Your task to perform on an android device: allow cookies in the chrome app Image 0: 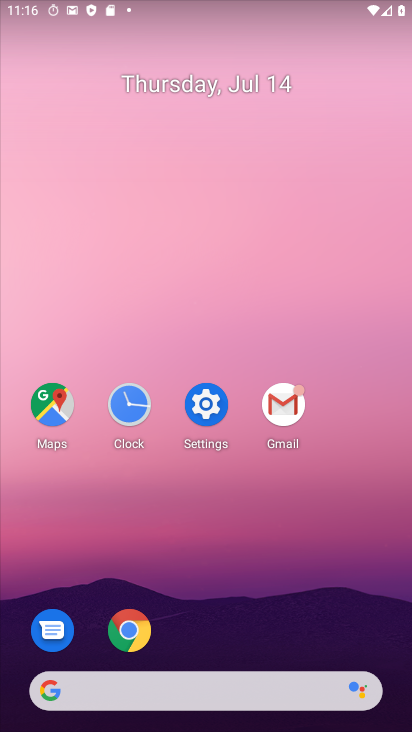
Step 0: click (130, 632)
Your task to perform on an android device: allow cookies in the chrome app Image 1: 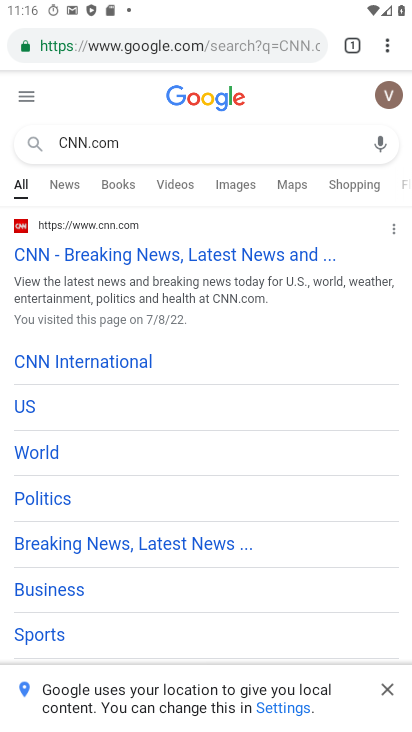
Step 1: click (387, 43)
Your task to perform on an android device: allow cookies in the chrome app Image 2: 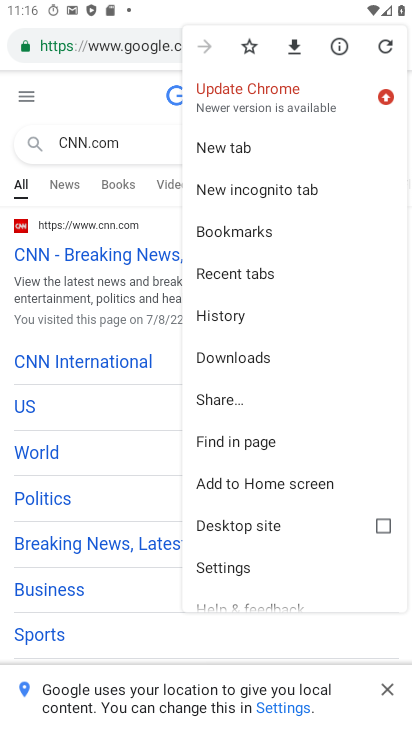
Step 2: click (212, 565)
Your task to perform on an android device: allow cookies in the chrome app Image 3: 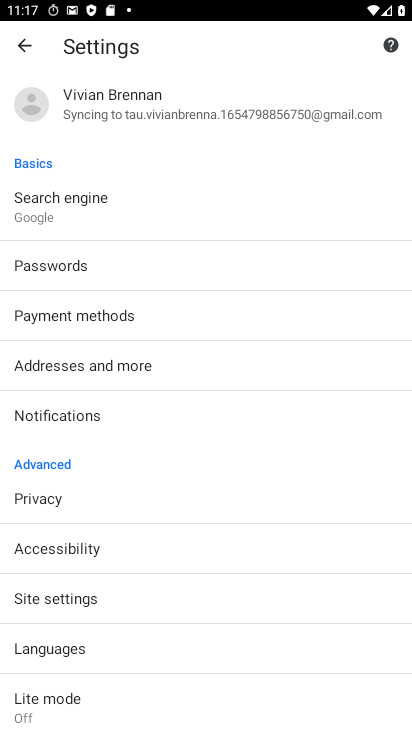
Step 3: click (79, 592)
Your task to perform on an android device: allow cookies in the chrome app Image 4: 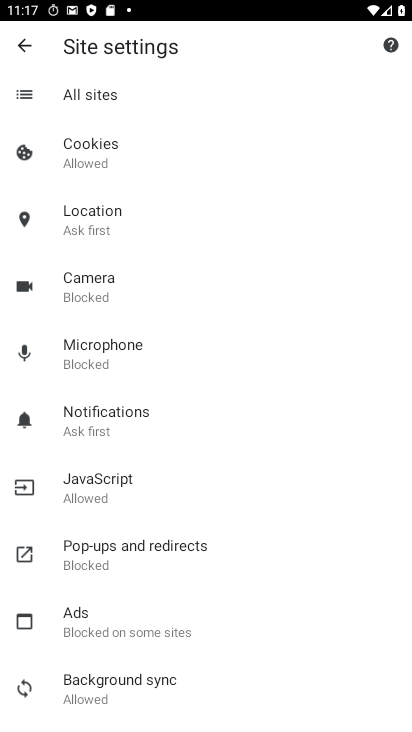
Step 4: click (94, 153)
Your task to perform on an android device: allow cookies in the chrome app Image 5: 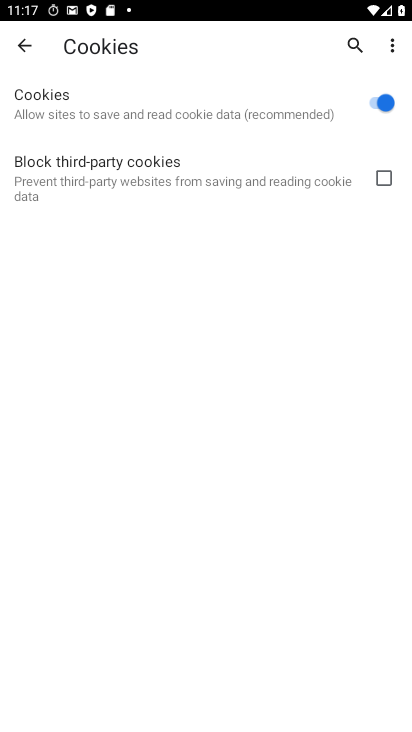
Step 5: task complete